Your task to perform on an android device: Open CNN.com Image 0: 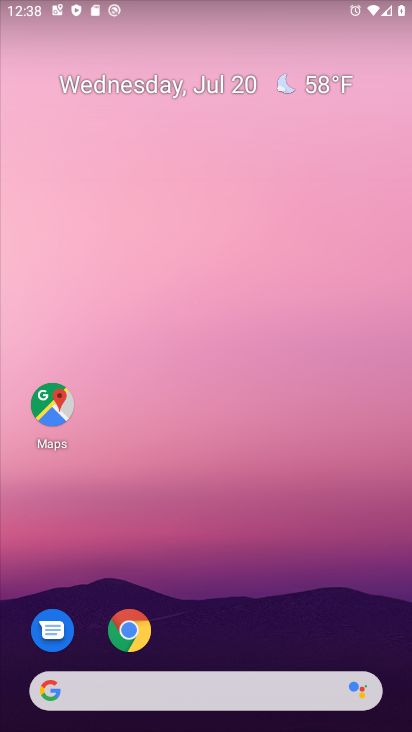
Step 0: press home button
Your task to perform on an android device: Open CNN.com Image 1: 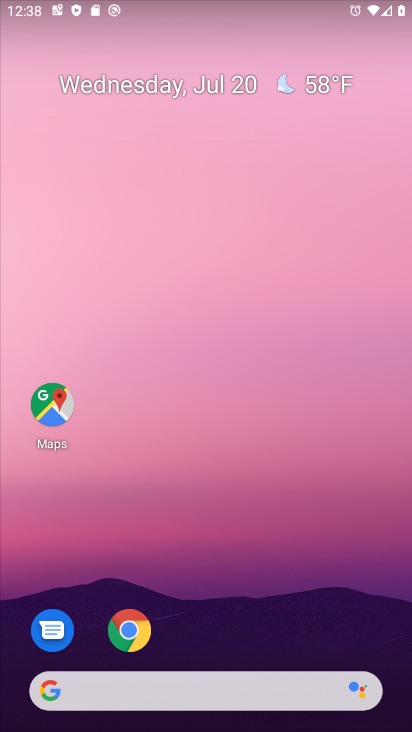
Step 1: click (128, 635)
Your task to perform on an android device: Open CNN.com Image 2: 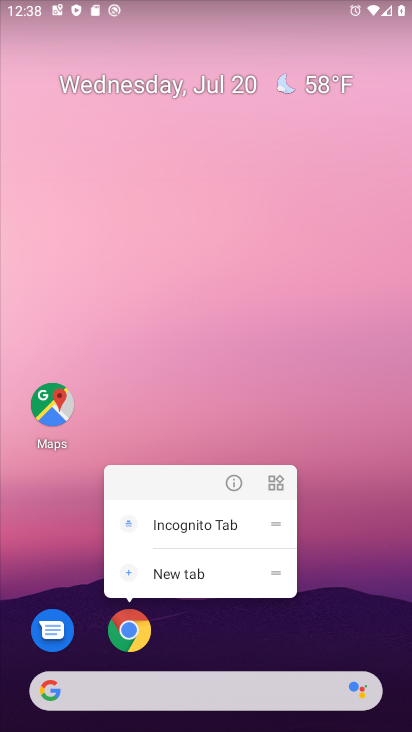
Step 2: click (129, 631)
Your task to perform on an android device: Open CNN.com Image 3: 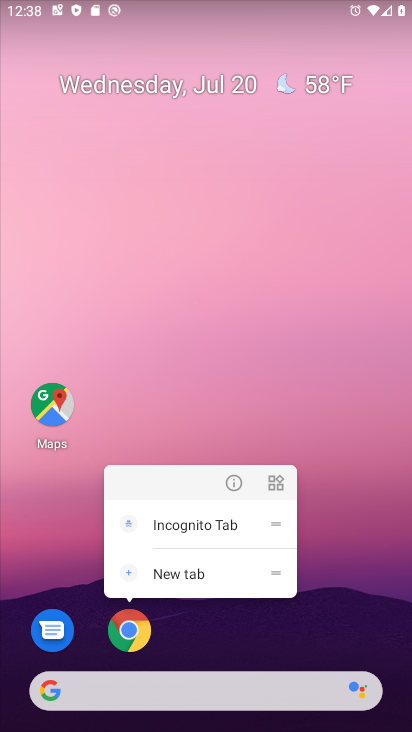
Step 3: click (129, 631)
Your task to perform on an android device: Open CNN.com Image 4: 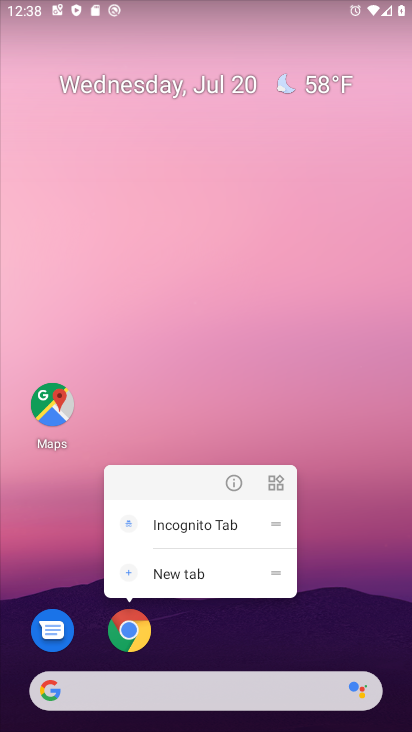
Step 4: click (129, 631)
Your task to perform on an android device: Open CNN.com Image 5: 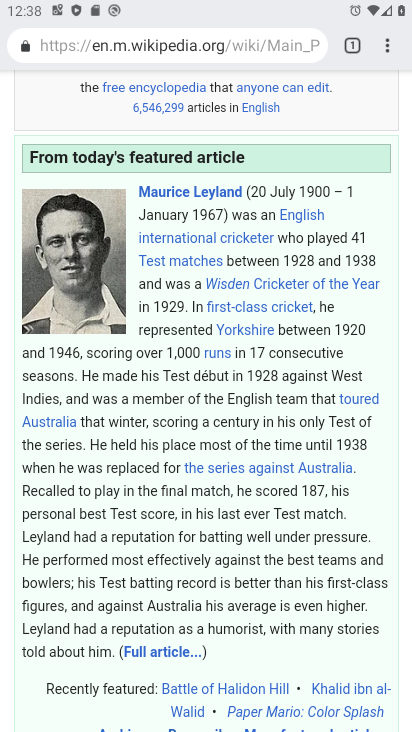
Step 5: drag from (386, 38) to (263, 94)
Your task to perform on an android device: Open CNN.com Image 6: 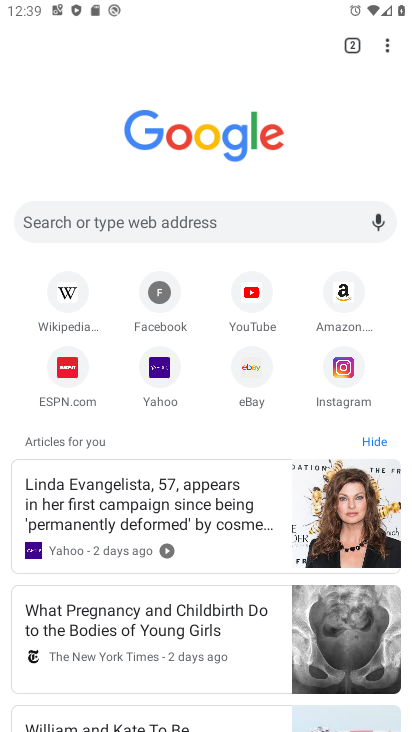
Step 6: click (88, 219)
Your task to perform on an android device: Open CNN.com Image 7: 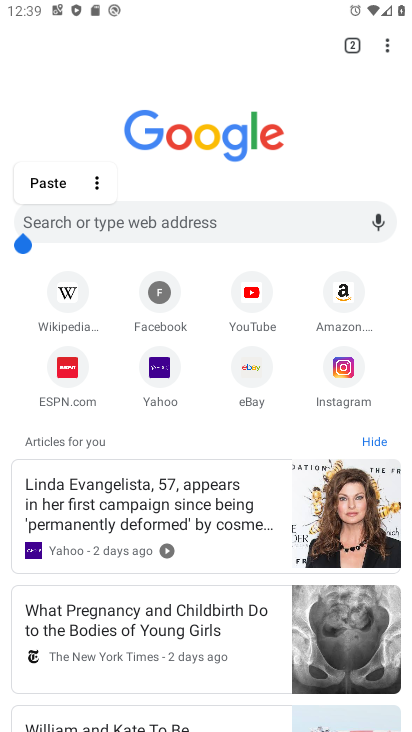
Step 7: click (111, 223)
Your task to perform on an android device: Open CNN.com Image 8: 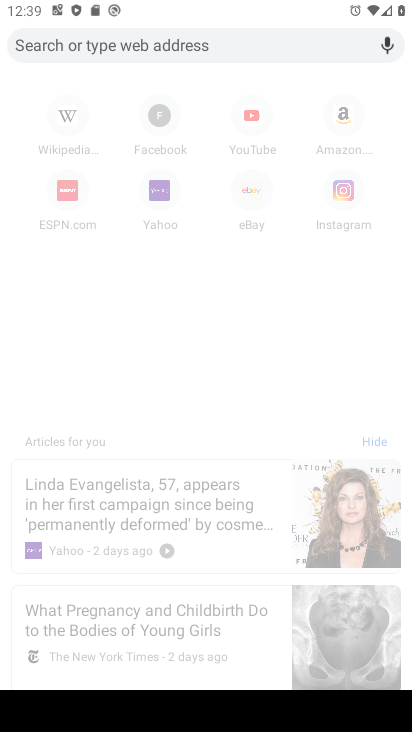
Step 8: type "cnn.com"
Your task to perform on an android device: Open CNN.com Image 9: 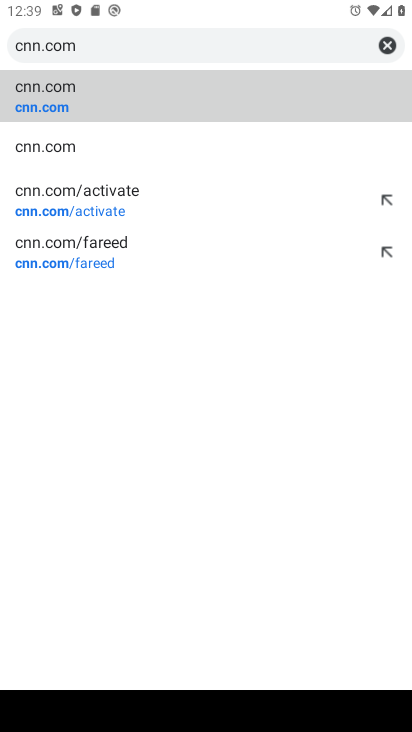
Step 9: click (71, 99)
Your task to perform on an android device: Open CNN.com Image 10: 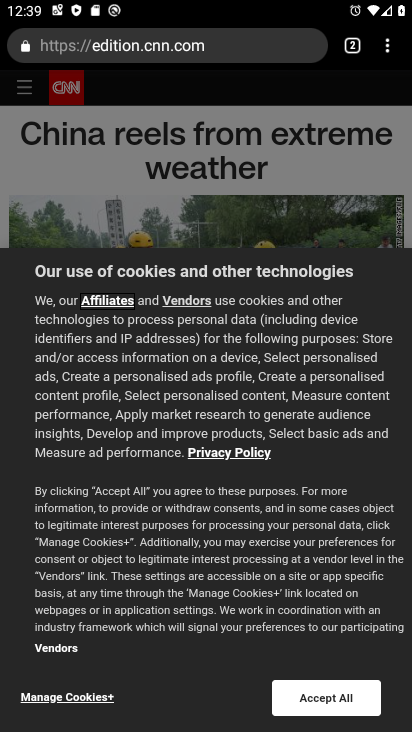
Step 10: click (330, 697)
Your task to perform on an android device: Open CNN.com Image 11: 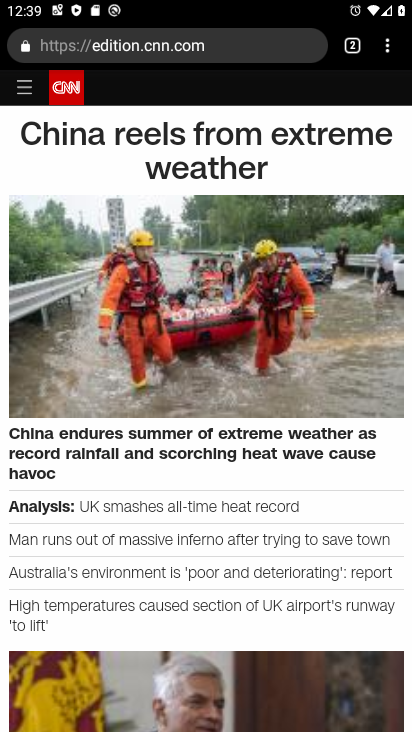
Step 11: task complete